Your task to perform on an android device: What's the weather going to be tomorrow? Image 0: 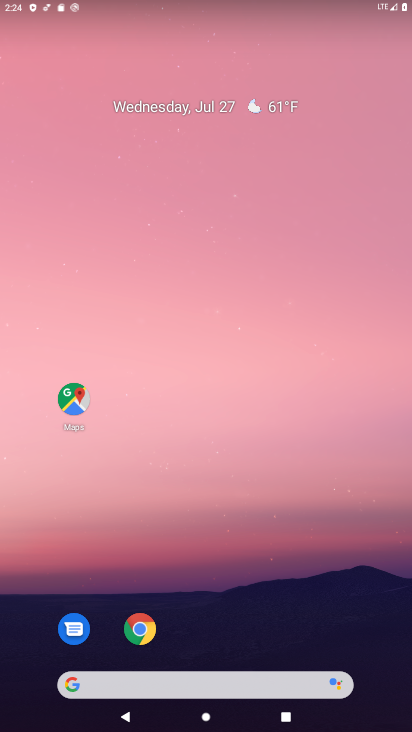
Step 0: drag from (161, 682) to (242, 74)
Your task to perform on an android device: What's the weather going to be tomorrow? Image 1: 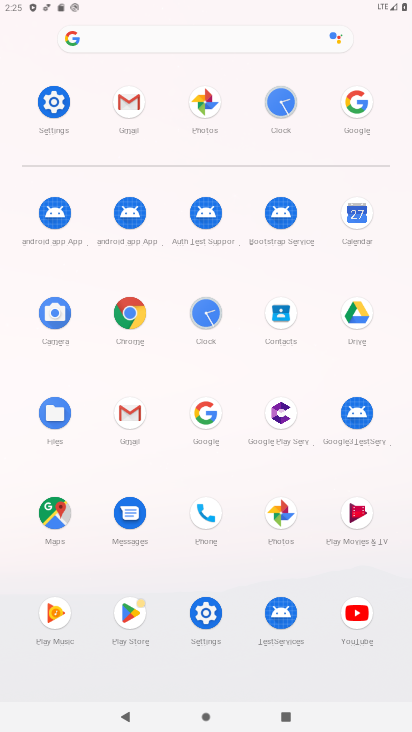
Step 1: click (254, 40)
Your task to perform on an android device: What's the weather going to be tomorrow? Image 2: 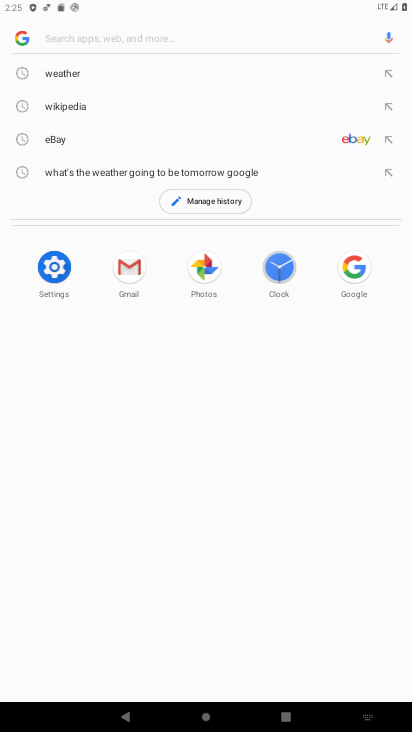
Step 2: click (122, 173)
Your task to perform on an android device: What's the weather going to be tomorrow? Image 3: 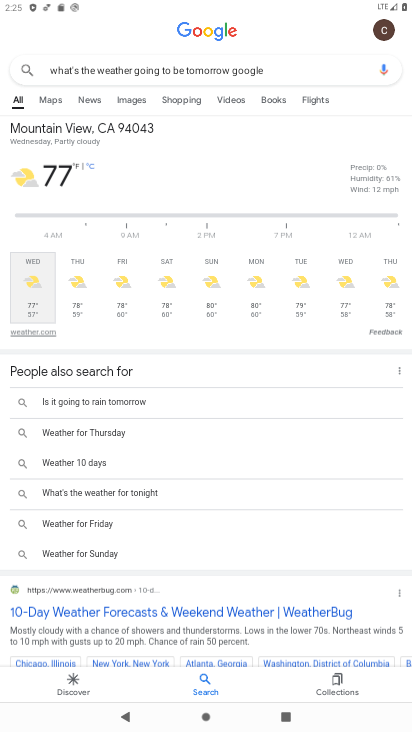
Step 3: click (76, 271)
Your task to perform on an android device: What's the weather going to be tomorrow? Image 4: 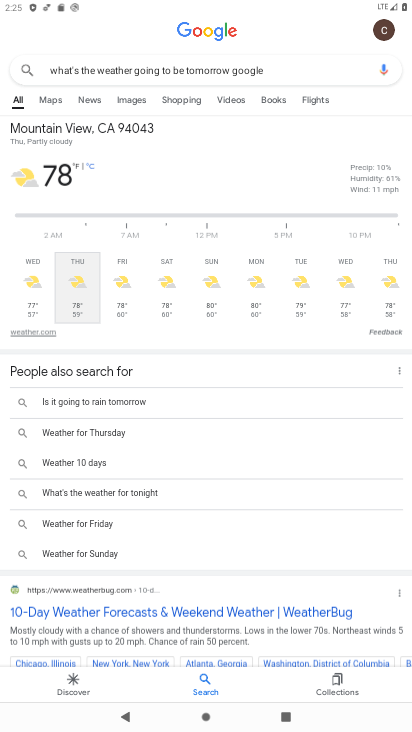
Step 4: task complete